Your task to perform on an android device: set the stopwatch Image 0: 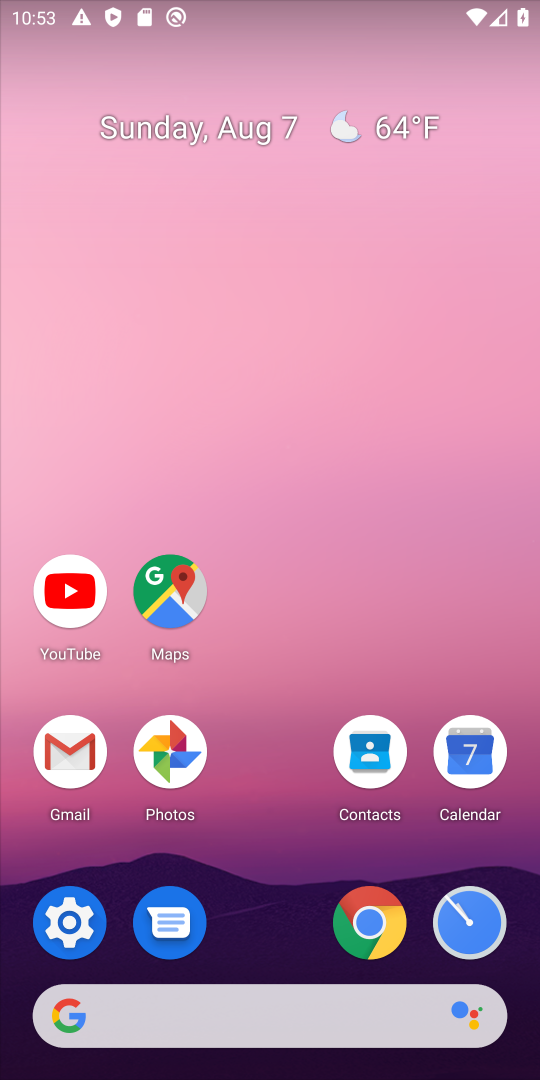
Step 0: click (471, 930)
Your task to perform on an android device: set the stopwatch Image 1: 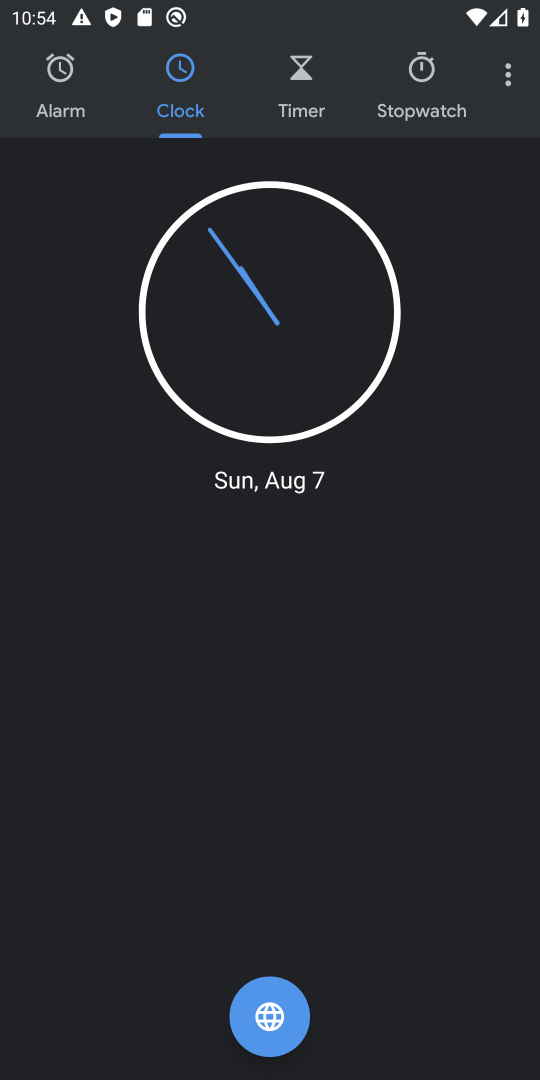
Step 1: click (431, 60)
Your task to perform on an android device: set the stopwatch Image 2: 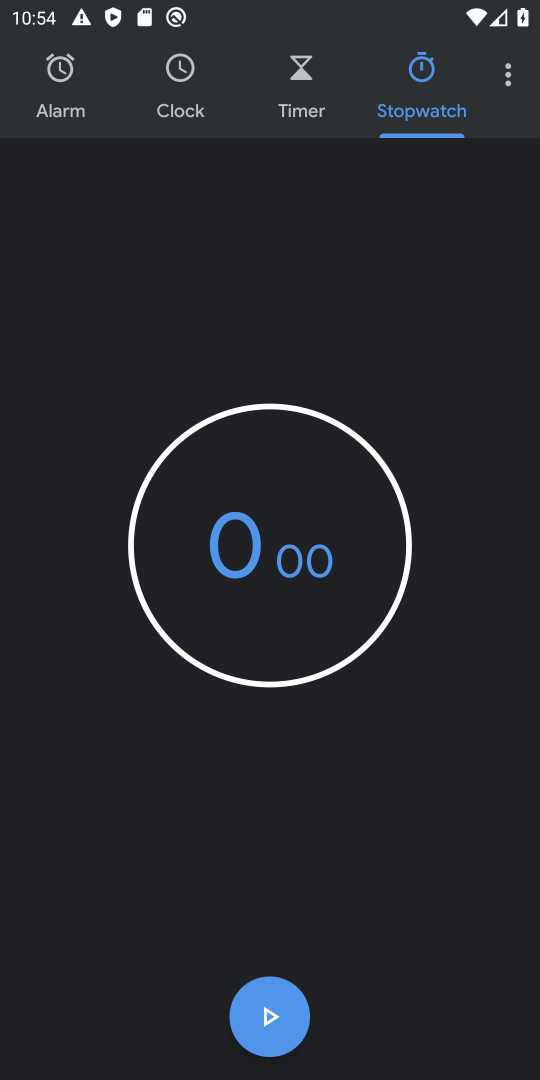
Step 2: task complete